Your task to perform on an android device: Go to Amazon Image 0: 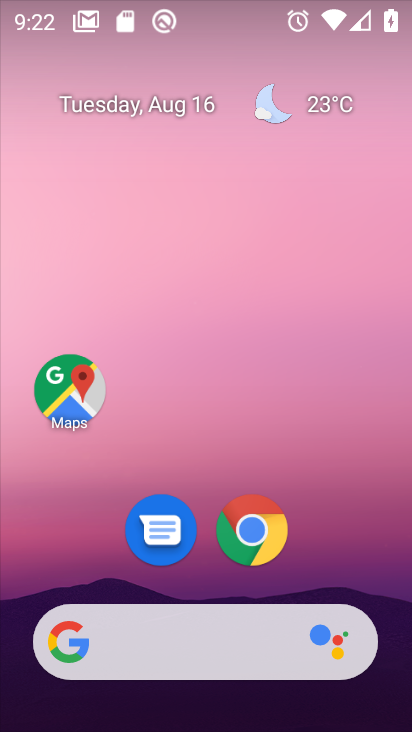
Step 0: drag from (344, 483) to (329, 279)
Your task to perform on an android device: Go to Amazon Image 1: 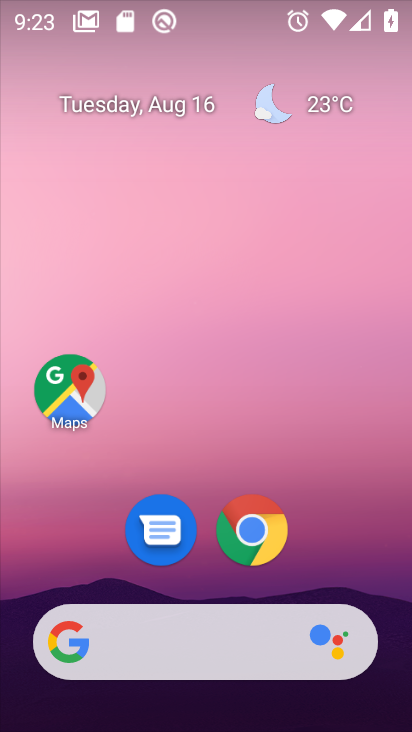
Step 1: drag from (345, 461) to (315, 57)
Your task to perform on an android device: Go to Amazon Image 2: 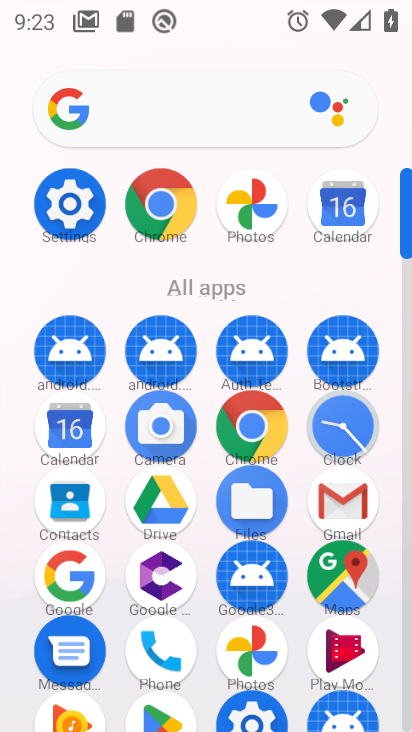
Step 2: click (253, 425)
Your task to perform on an android device: Go to Amazon Image 3: 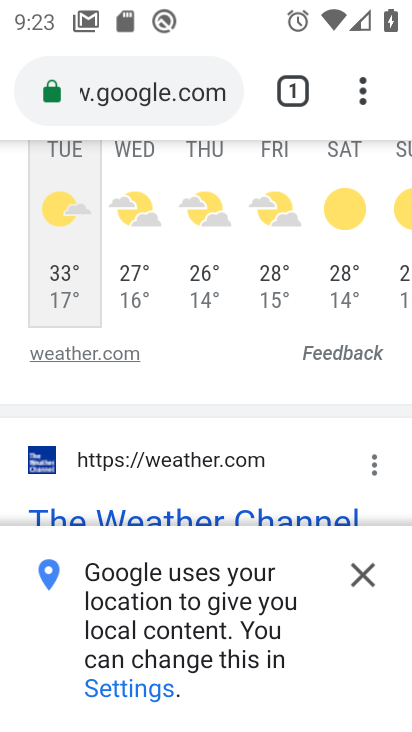
Step 3: click (217, 89)
Your task to perform on an android device: Go to Amazon Image 4: 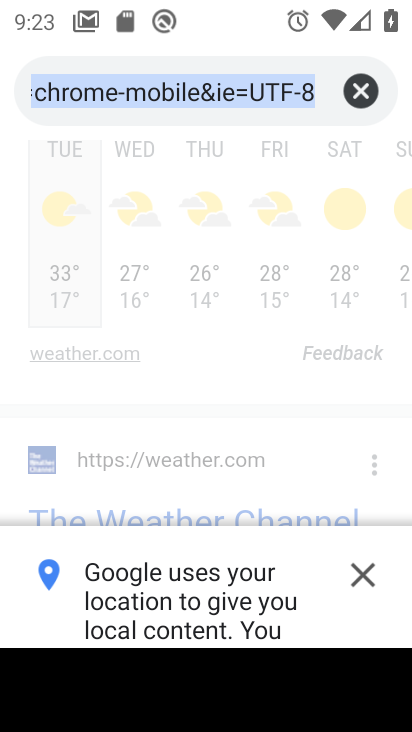
Step 4: type "amazon"
Your task to perform on an android device: Go to Amazon Image 5: 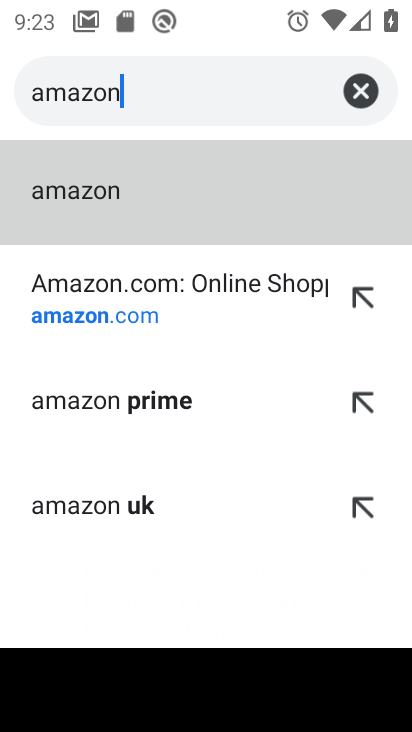
Step 5: click (90, 299)
Your task to perform on an android device: Go to Amazon Image 6: 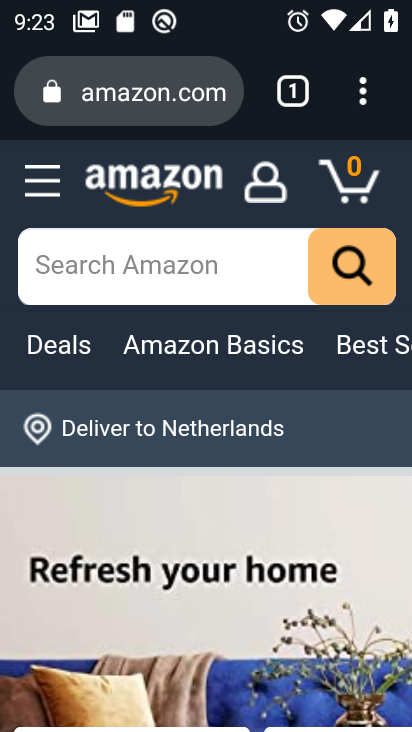
Step 6: task complete